Your task to perform on an android device: add a label to a message in the gmail app Image 0: 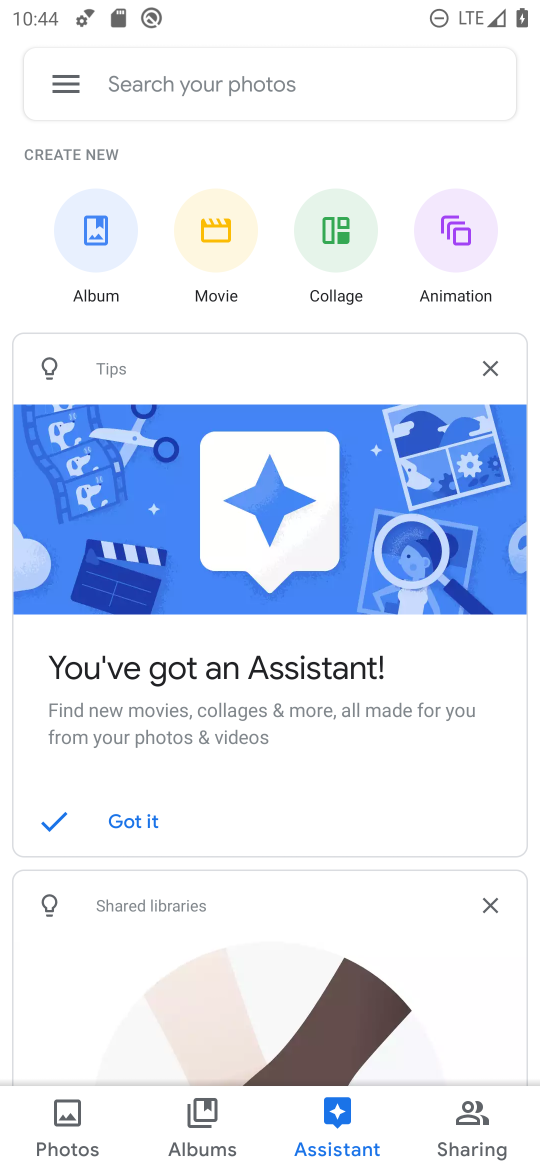
Step 0: press home button
Your task to perform on an android device: add a label to a message in the gmail app Image 1: 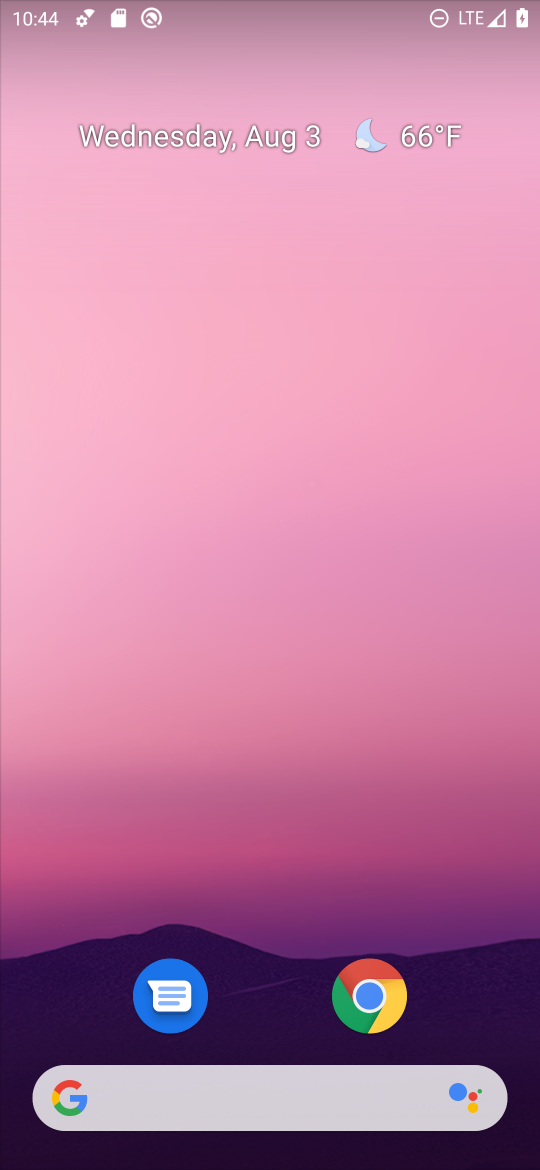
Step 1: drag from (319, 851) to (334, 0)
Your task to perform on an android device: add a label to a message in the gmail app Image 2: 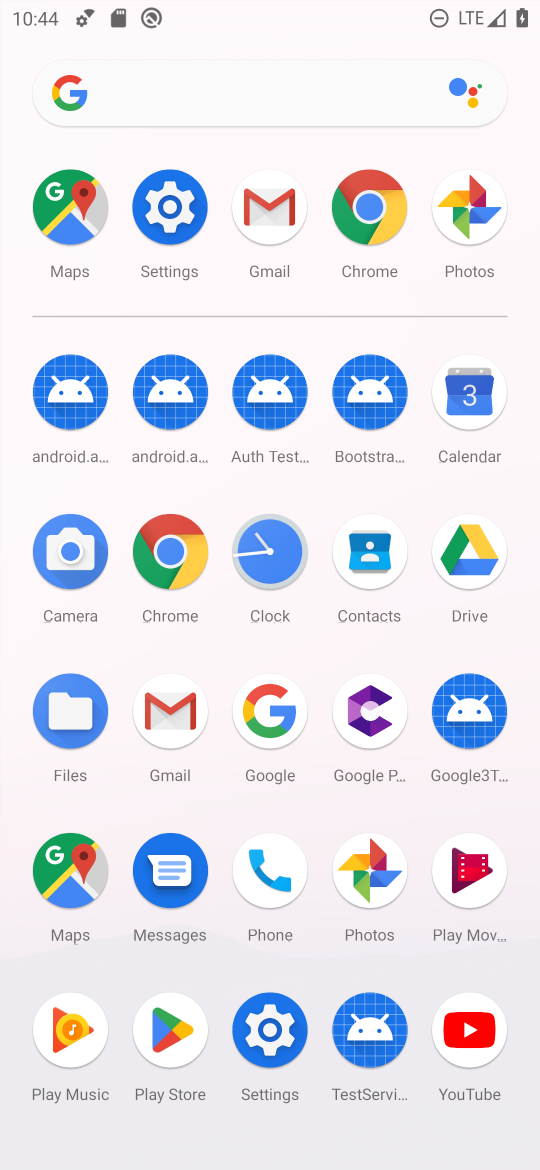
Step 2: click (263, 219)
Your task to perform on an android device: add a label to a message in the gmail app Image 3: 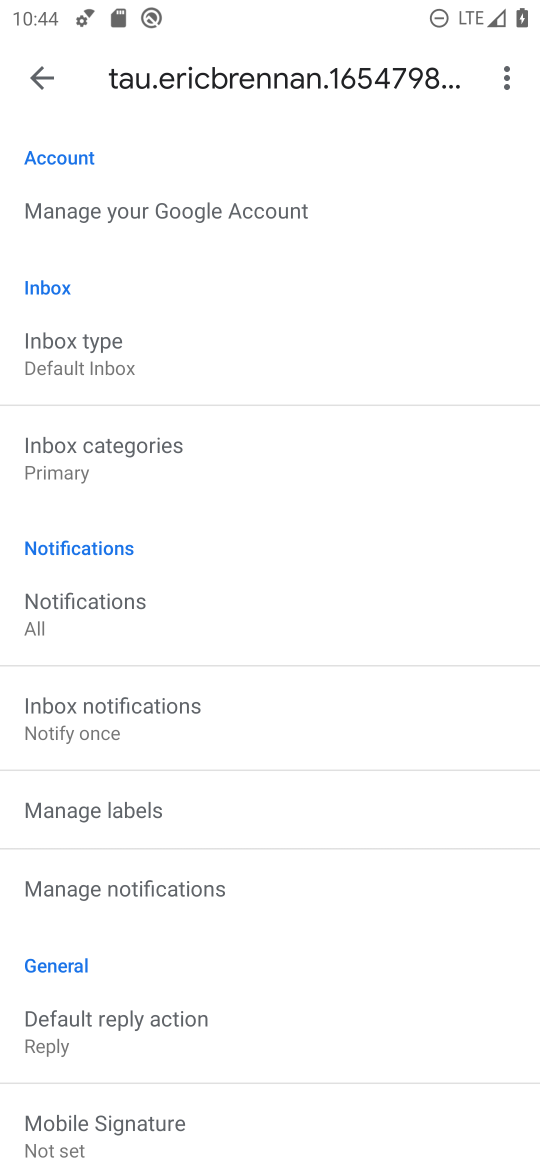
Step 3: click (51, 72)
Your task to perform on an android device: add a label to a message in the gmail app Image 4: 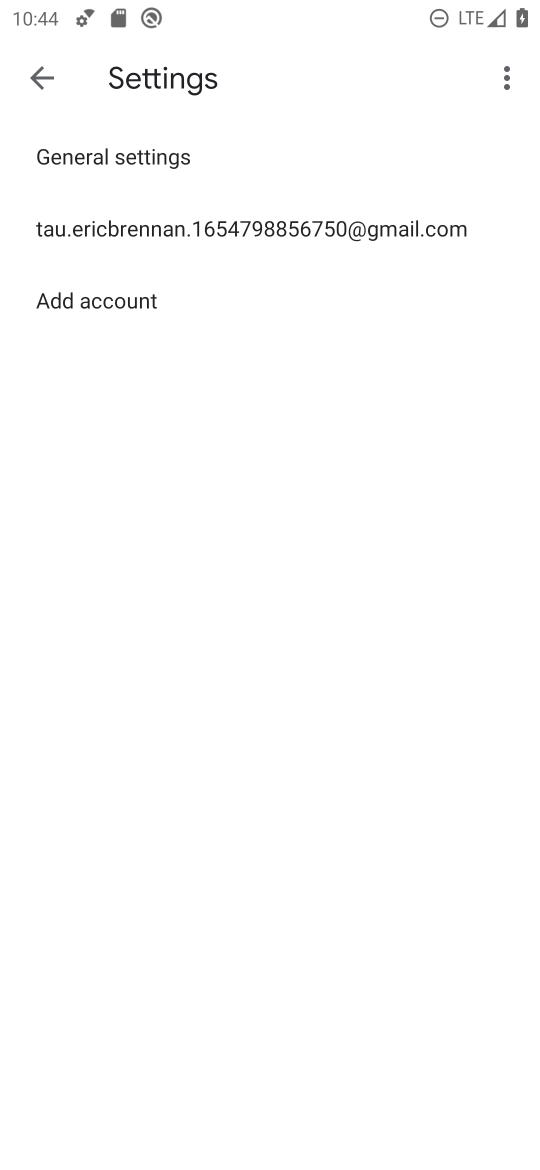
Step 4: click (51, 68)
Your task to perform on an android device: add a label to a message in the gmail app Image 5: 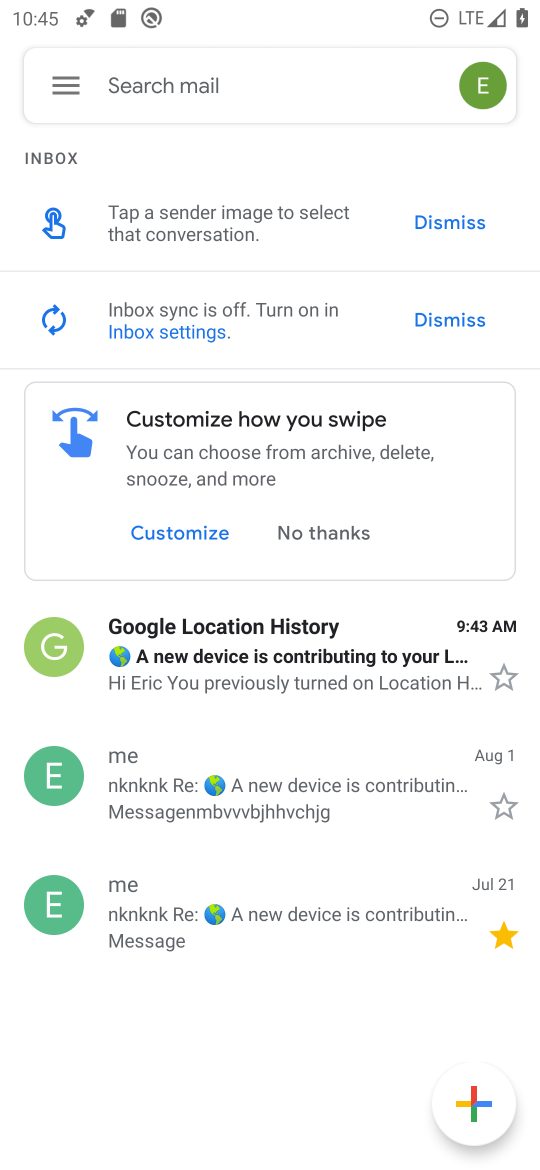
Step 5: click (318, 821)
Your task to perform on an android device: add a label to a message in the gmail app Image 6: 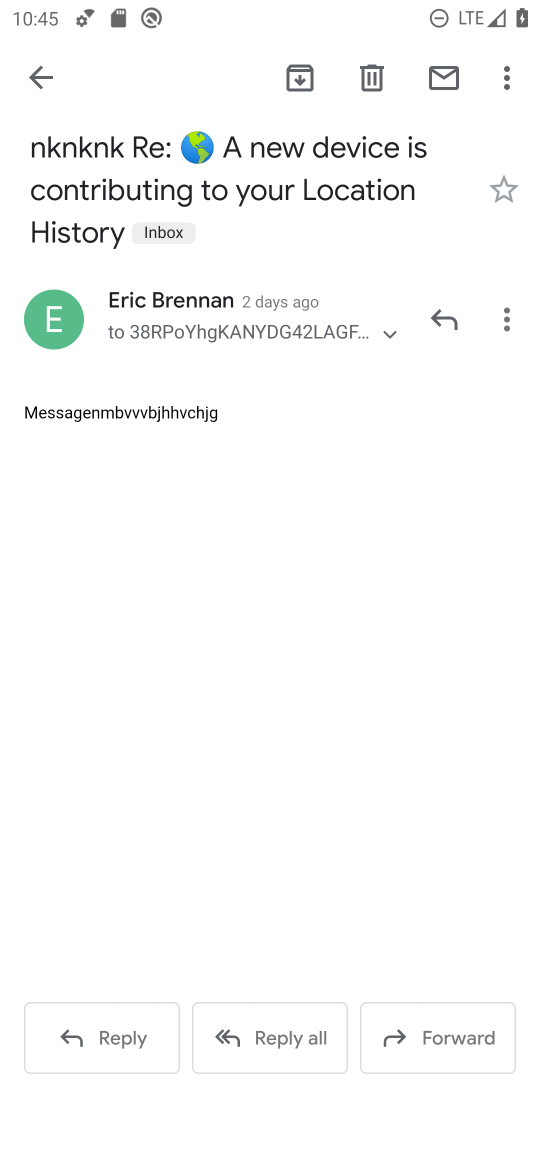
Step 6: click (506, 185)
Your task to perform on an android device: add a label to a message in the gmail app Image 7: 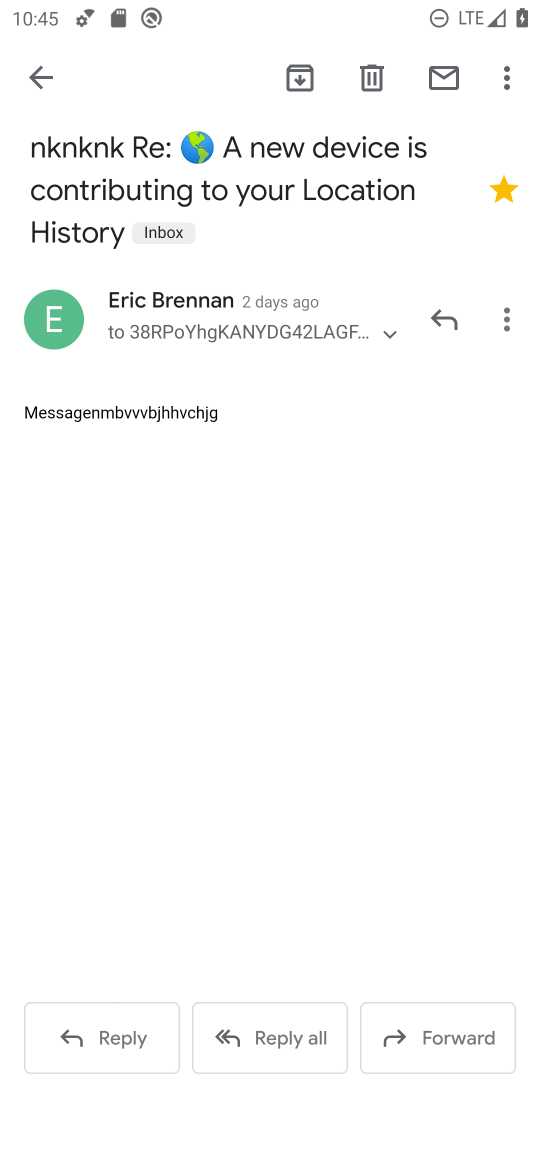
Step 7: task complete